Your task to perform on an android device: toggle notifications settings in the gmail app Image 0: 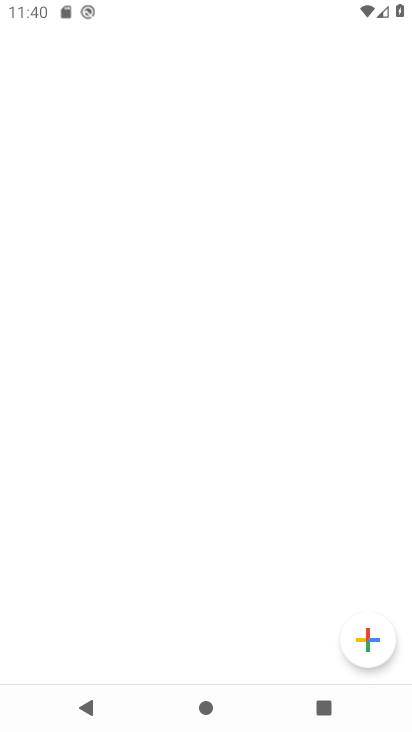
Step 0: click (208, 369)
Your task to perform on an android device: toggle notifications settings in the gmail app Image 1: 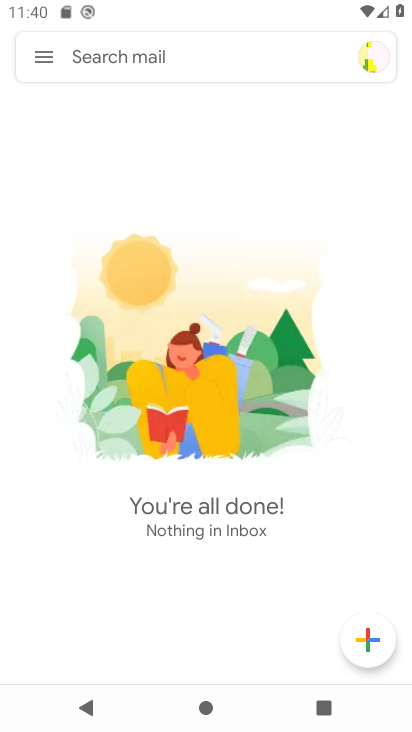
Step 1: press home button
Your task to perform on an android device: toggle notifications settings in the gmail app Image 2: 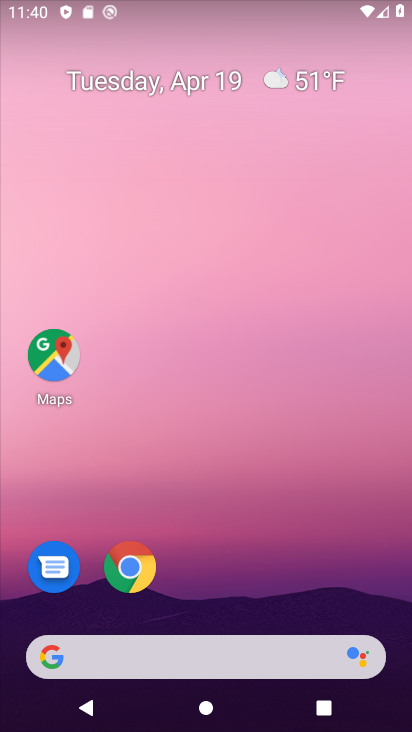
Step 2: drag from (235, 594) to (341, 147)
Your task to perform on an android device: toggle notifications settings in the gmail app Image 3: 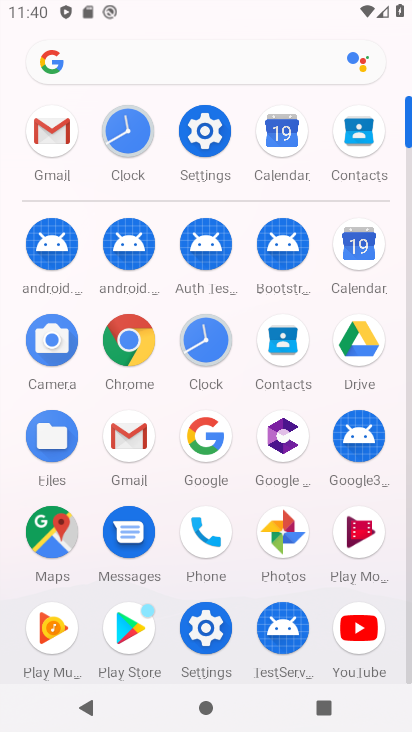
Step 3: click (126, 438)
Your task to perform on an android device: toggle notifications settings in the gmail app Image 4: 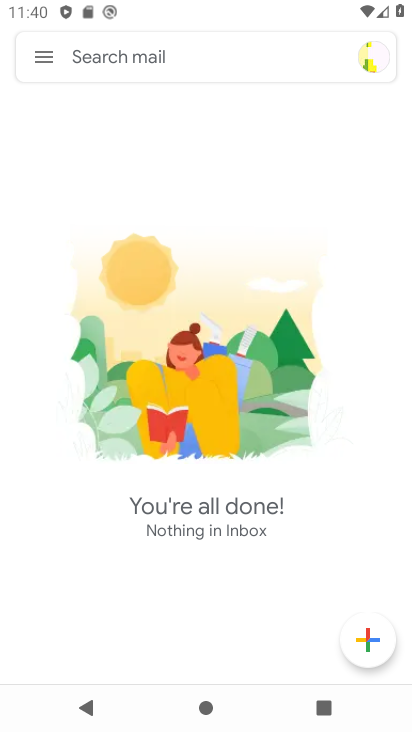
Step 4: click (41, 59)
Your task to perform on an android device: toggle notifications settings in the gmail app Image 5: 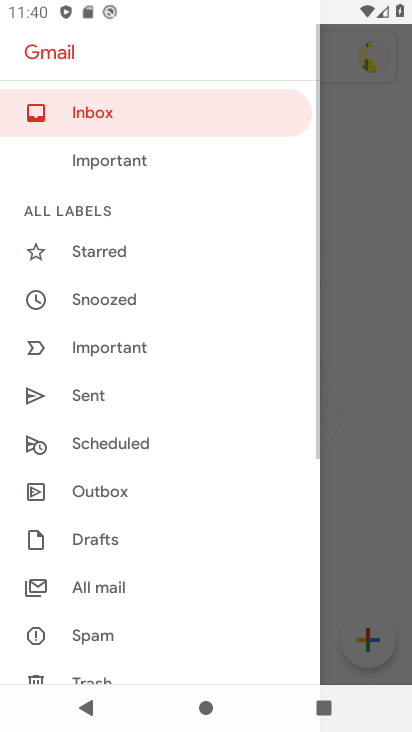
Step 5: drag from (97, 597) to (187, 138)
Your task to perform on an android device: toggle notifications settings in the gmail app Image 6: 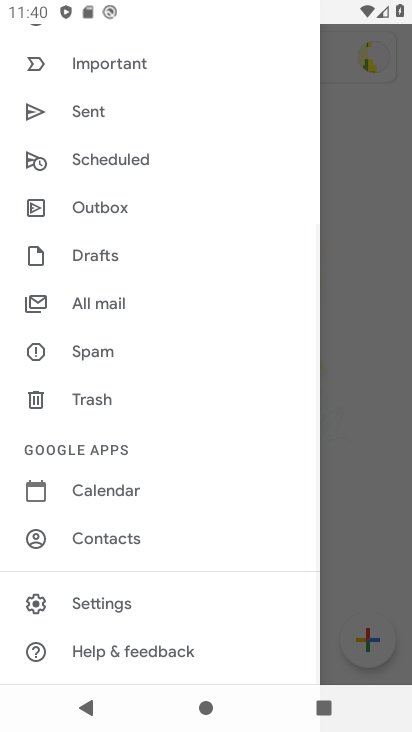
Step 6: click (108, 595)
Your task to perform on an android device: toggle notifications settings in the gmail app Image 7: 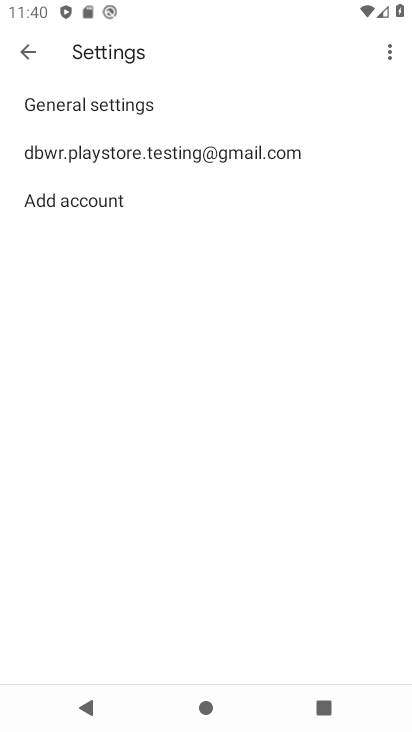
Step 7: click (93, 98)
Your task to perform on an android device: toggle notifications settings in the gmail app Image 8: 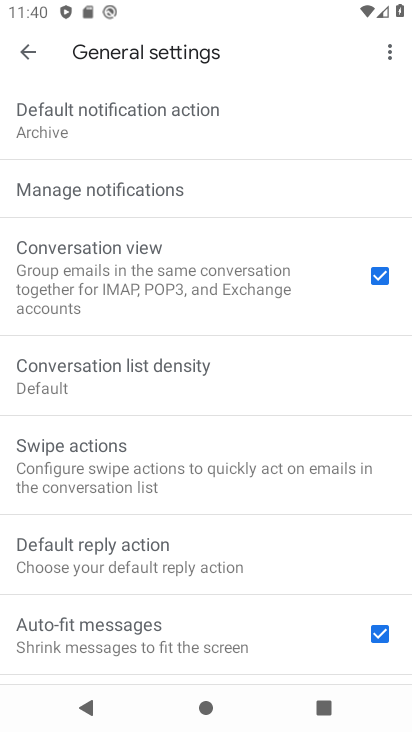
Step 8: click (116, 195)
Your task to perform on an android device: toggle notifications settings in the gmail app Image 9: 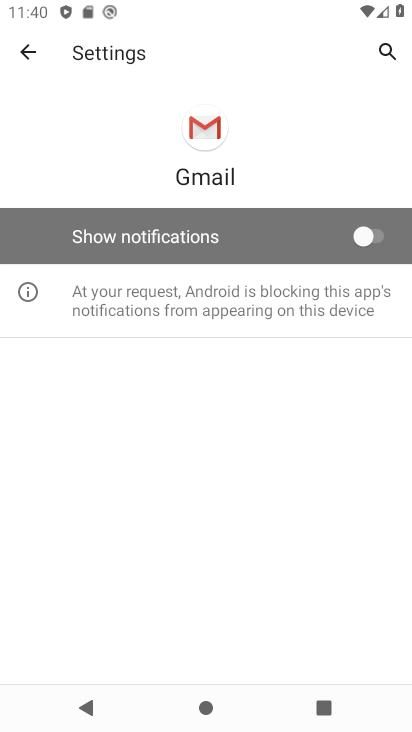
Step 9: click (377, 232)
Your task to perform on an android device: toggle notifications settings in the gmail app Image 10: 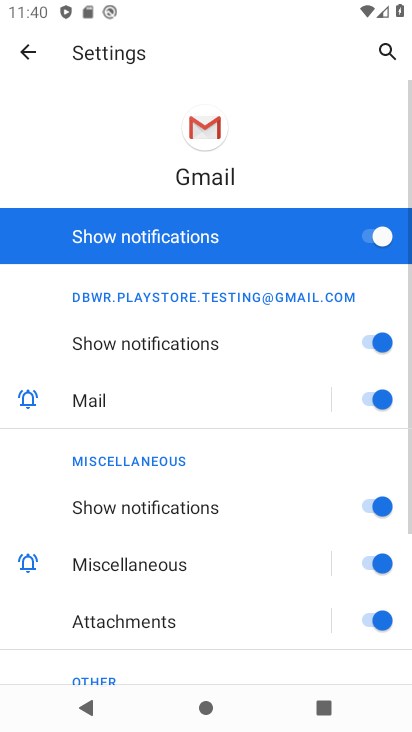
Step 10: task complete